Your task to perform on an android device: Go to accessibility settings Image 0: 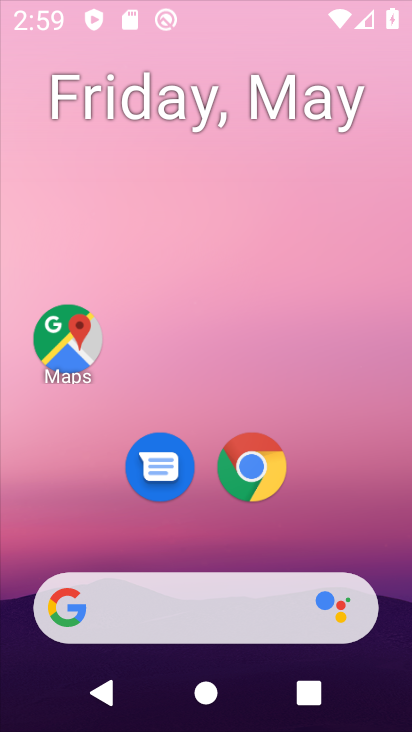
Step 0: click (334, 71)
Your task to perform on an android device: Go to accessibility settings Image 1: 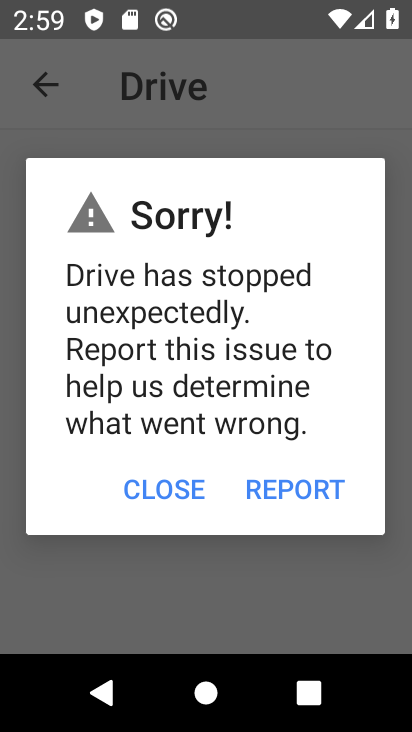
Step 1: press home button
Your task to perform on an android device: Go to accessibility settings Image 2: 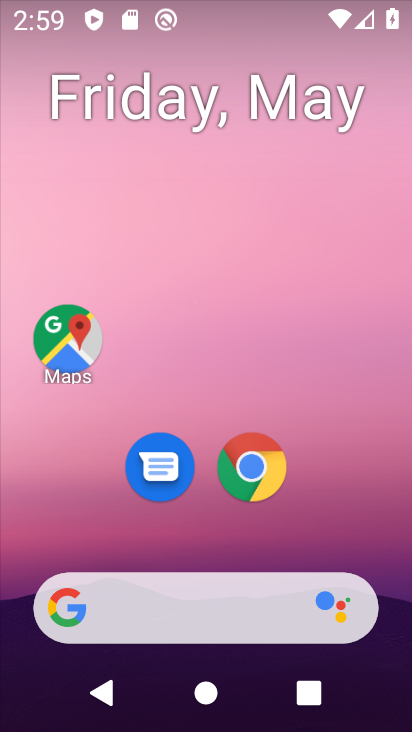
Step 2: drag from (338, 523) to (286, 116)
Your task to perform on an android device: Go to accessibility settings Image 3: 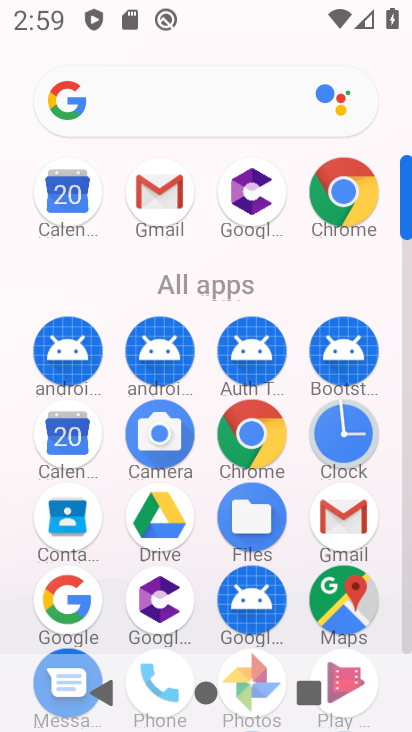
Step 3: drag from (397, 601) to (389, 250)
Your task to perform on an android device: Go to accessibility settings Image 4: 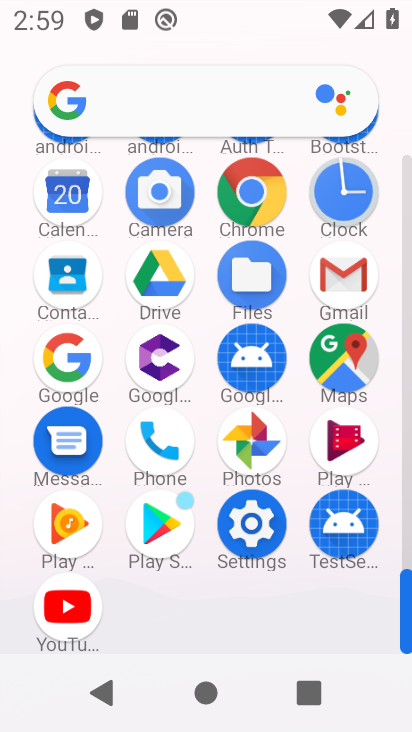
Step 4: click (251, 522)
Your task to perform on an android device: Go to accessibility settings Image 5: 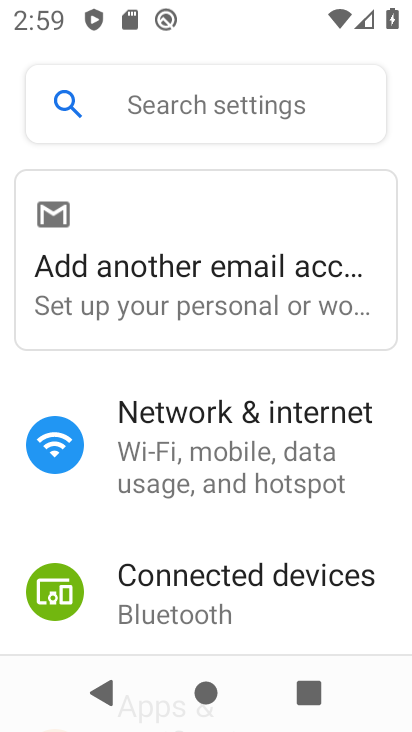
Step 5: drag from (225, 585) to (232, 239)
Your task to perform on an android device: Go to accessibility settings Image 6: 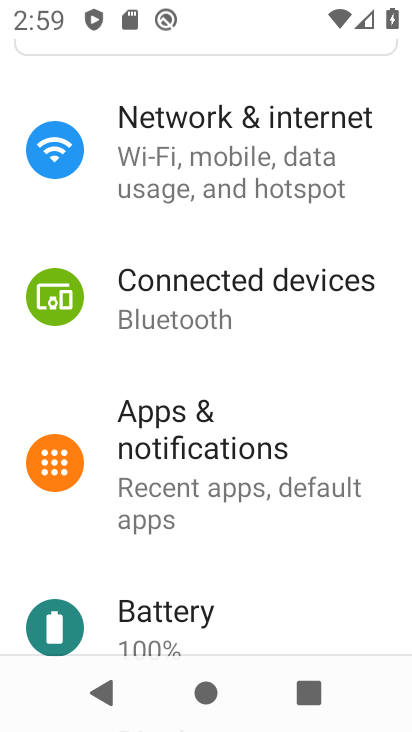
Step 6: drag from (226, 530) to (192, 222)
Your task to perform on an android device: Go to accessibility settings Image 7: 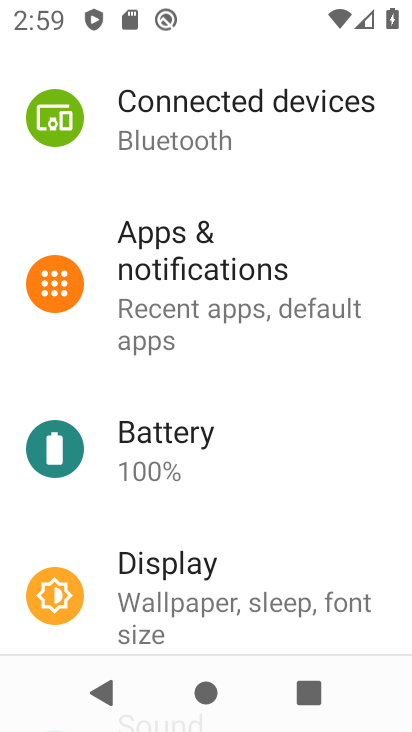
Step 7: drag from (253, 532) to (249, 201)
Your task to perform on an android device: Go to accessibility settings Image 8: 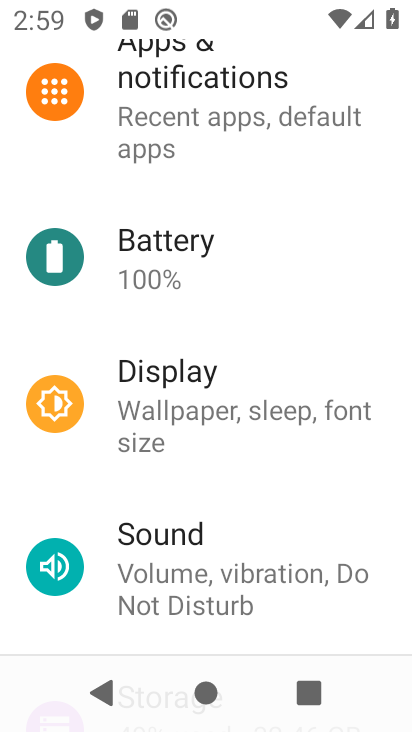
Step 8: drag from (234, 566) to (263, 174)
Your task to perform on an android device: Go to accessibility settings Image 9: 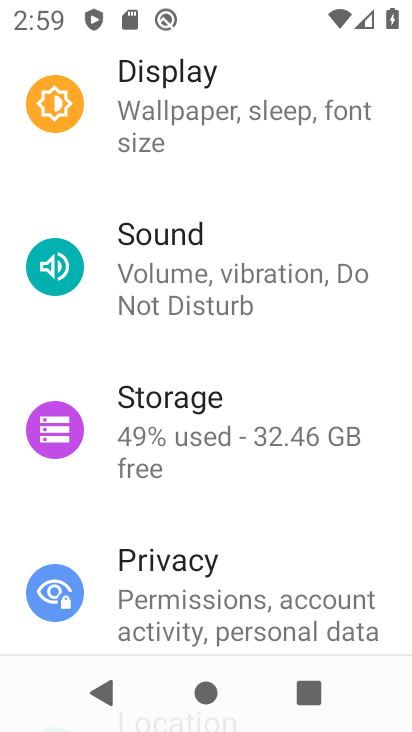
Step 9: drag from (248, 570) to (251, 146)
Your task to perform on an android device: Go to accessibility settings Image 10: 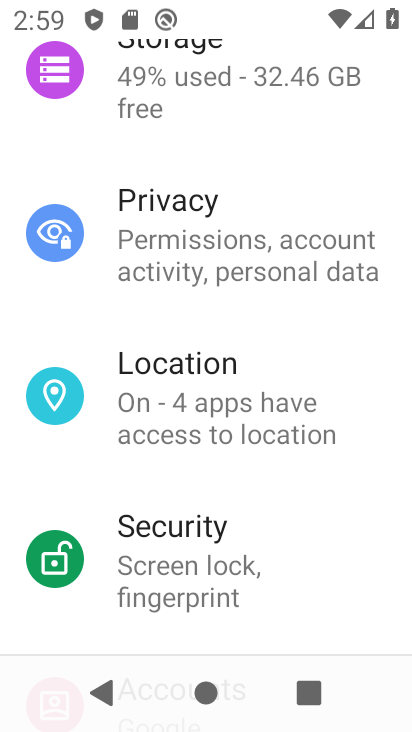
Step 10: drag from (204, 569) to (209, 143)
Your task to perform on an android device: Go to accessibility settings Image 11: 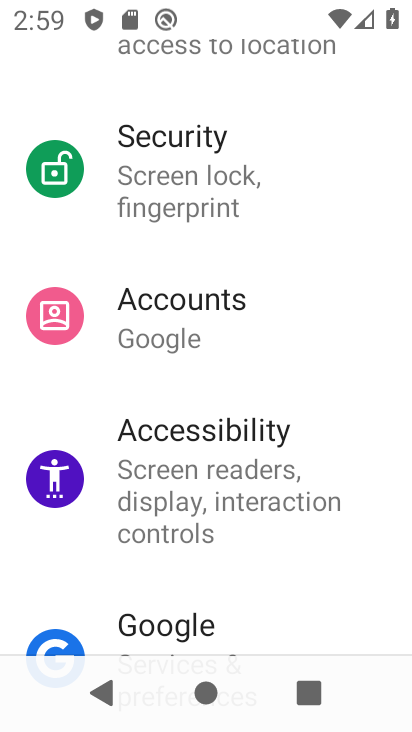
Step 11: click (202, 490)
Your task to perform on an android device: Go to accessibility settings Image 12: 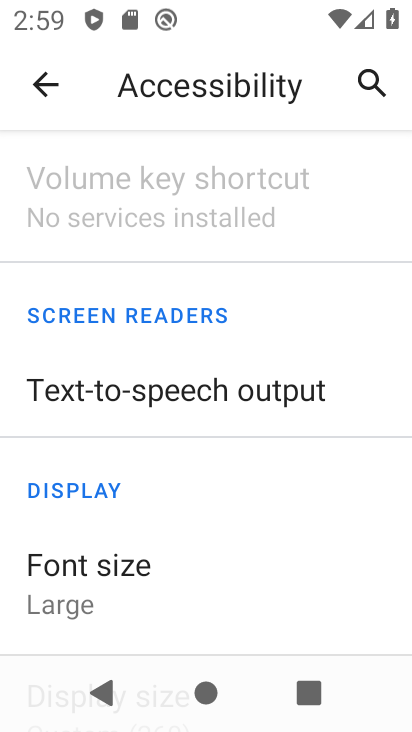
Step 12: task complete